Your task to perform on an android device: Clear all items from cart on walmart. Search for acer nitro on walmart, select the first entry, and add it to the cart. Image 0: 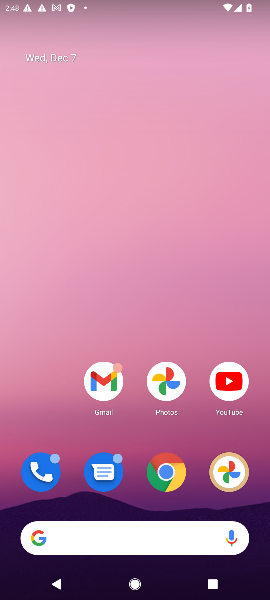
Step 0: drag from (94, 519) to (105, 171)
Your task to perform on an android device: Clear all items from cart on walmart. Search for acer nitro on walmart, select the first entry, and add it to the cart. Image 1: 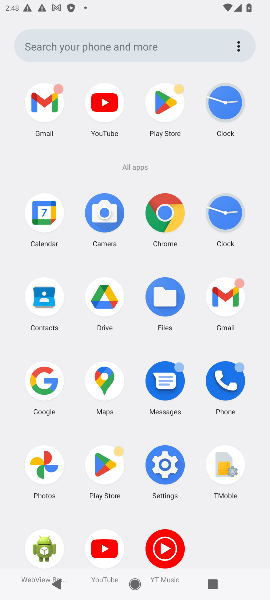
Step 1: click (41, 374)
Your task to perform on an android device: Clear all items from cart on walmart. Search for acer nitro on walmart, select the first entry, and add it to the cart. Image 2: 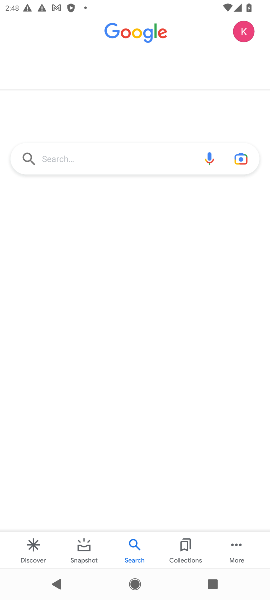
Step 2: click (64, 160)
Your task to perform on an android device: Clear all items from cart on walmart. Search for acer nitro on walmart, select the first entry, and add it to the cart. Image 3: 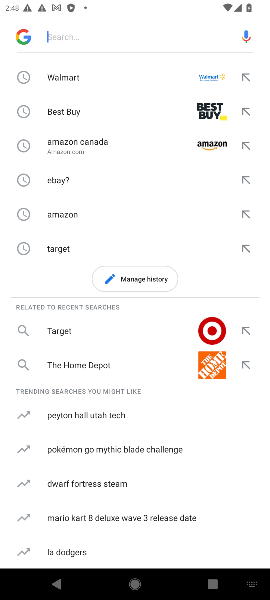
Step 3: click (207, 79)
Your task to perform on an android device: Clear all items from cart on walmart. Search for acer nitro on walmart, select the first entry, and add it to the cart. Image 4: 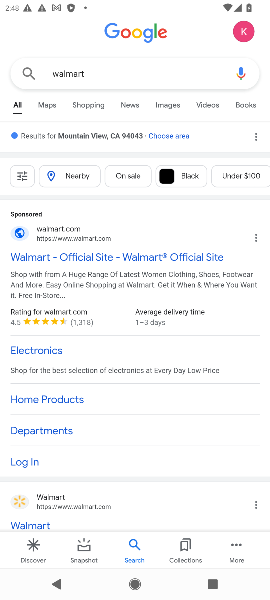
Step 4: click (73, 256)
Your task to perform on an android device: Clear all items from cart on walmart. Search for acer nitro on walmart, select the first entry, and add it to the cart. Image 5: 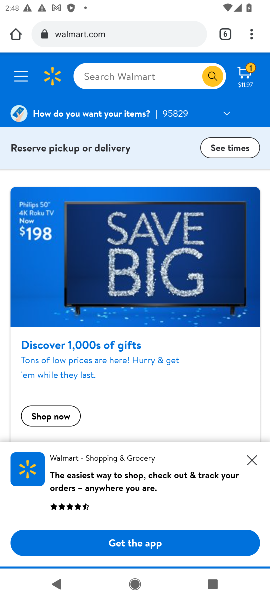
Step 5: click (110, 76)
Your task to perform on an android device: Clear all items from cart on walmart. Search for acer nitro on walmart, select the first entry, and add it to the cart. Image 6: 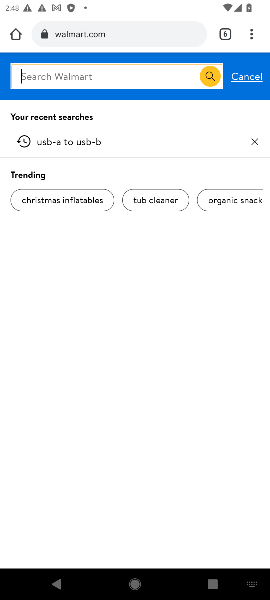
Step 6: type "acer nitro"
Your task to perform on an android device: Clear all items from cart on walmart. Search for acer nitro on walmart, select the first entry, and add it to the cart. Image 7: 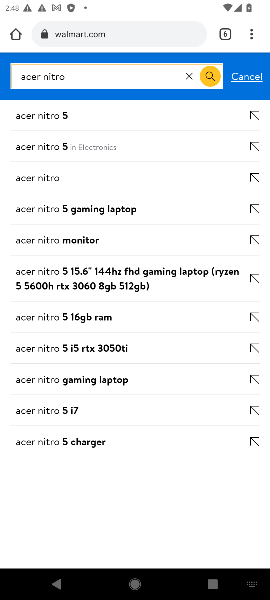
Step 7: click (50, 174)
Your task to perform on an android device: Clear all items from cart on walmart. Search for acer nitro on walmart, select the first entry, and add it to the cart. Image 8: 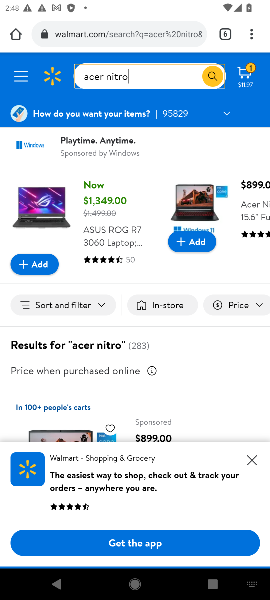
Step 8: drag from (121, 393) to (91, 126)
Your task to perform on an android device: Clear all items from cart on walmart. Search for acer nitro on walmart, select the first entry, and add it to the cart. Image 9: 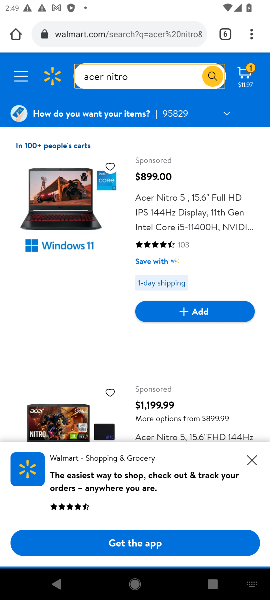
Step 9: click (177, 311)
Your task to perform on an android device: Clear all items from cart on walmart. Search for acer nitro on walmart, select the first entry, and add it to the cart. Image 10: 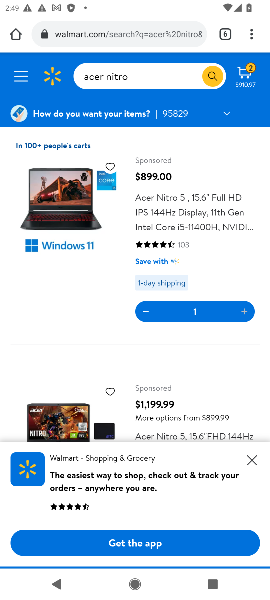
Step 10: task complete